Your task to perform on an android device: set default search engine in the chrome app Image 0: 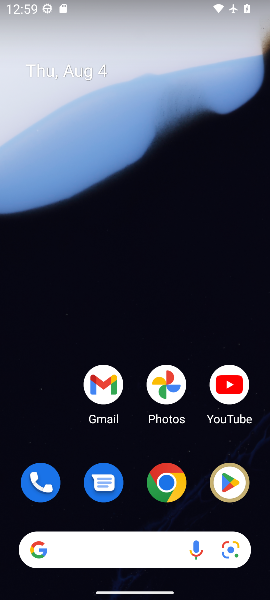
Step 0: click (173, 487)
Your task to perform on an android device: set default search engine in the chrome app Image 1: 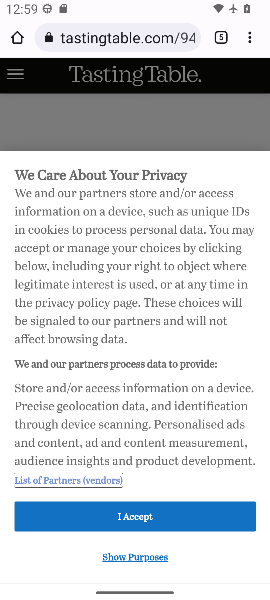
Step 1: click (245, 35)
Your task to perform on an android device: set default search engine in the chrome app Image 2: 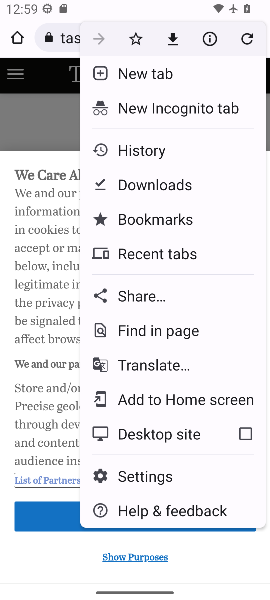
Step 2: click (146, 479)
Your task to perform on an android device: set default search engine in the chrome app Image 3: 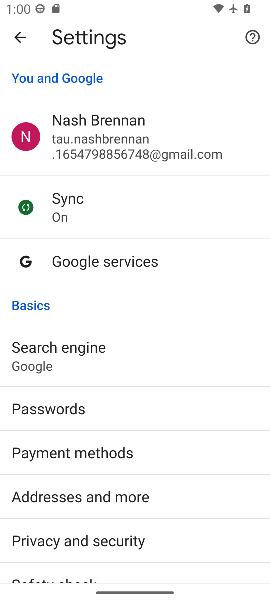
Step 3: click (84, 353)
Your task to perform on an android device: set default search engine in the chrome app Image 4: 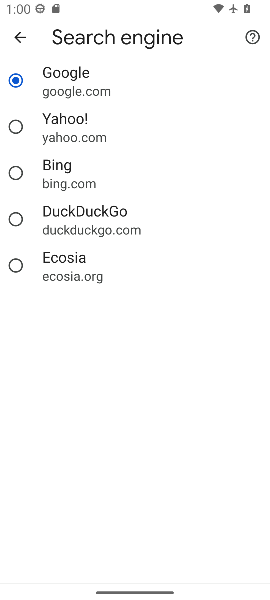
Step 4: task complete